Your task to perform on an android device: open app "Google Drive" Image 0: 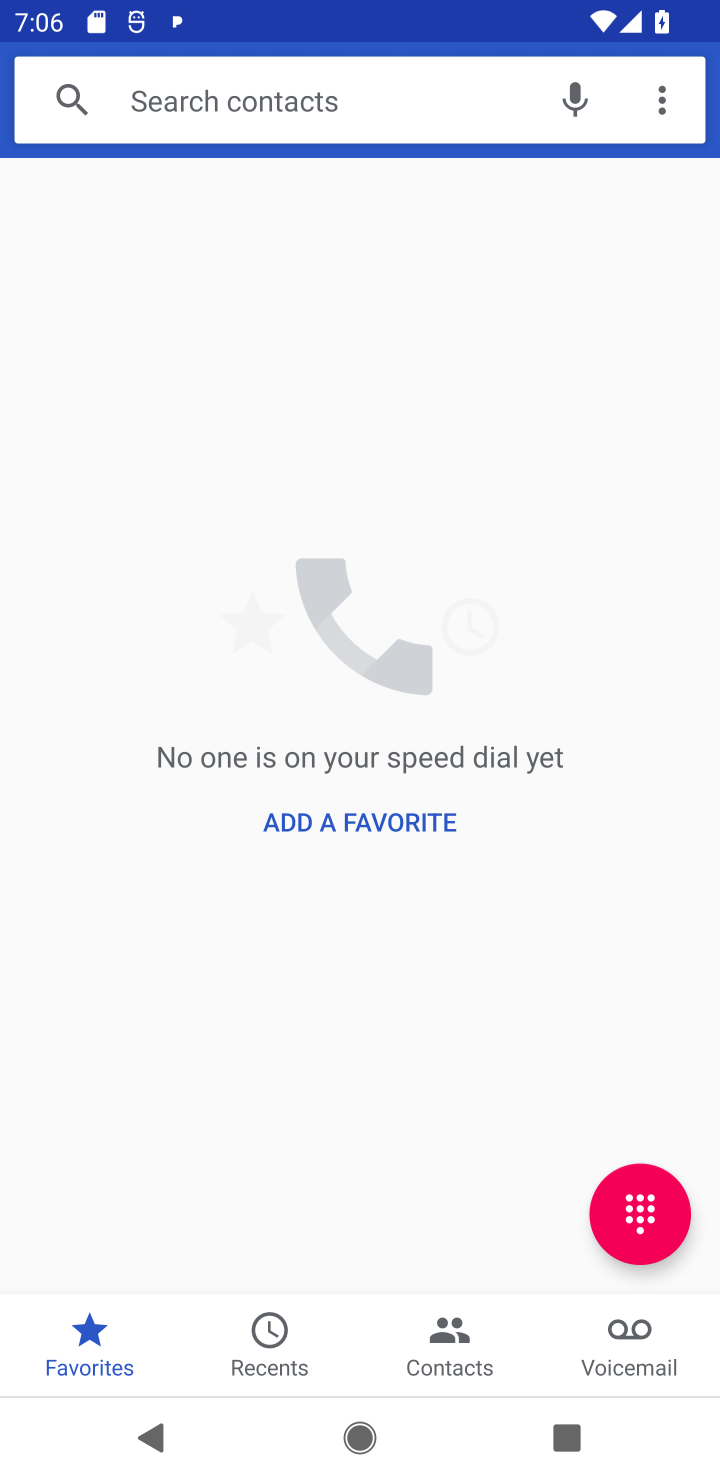
Step 0: press home button
Your task to perform on an android device: open app "Google Drive" Image 1: 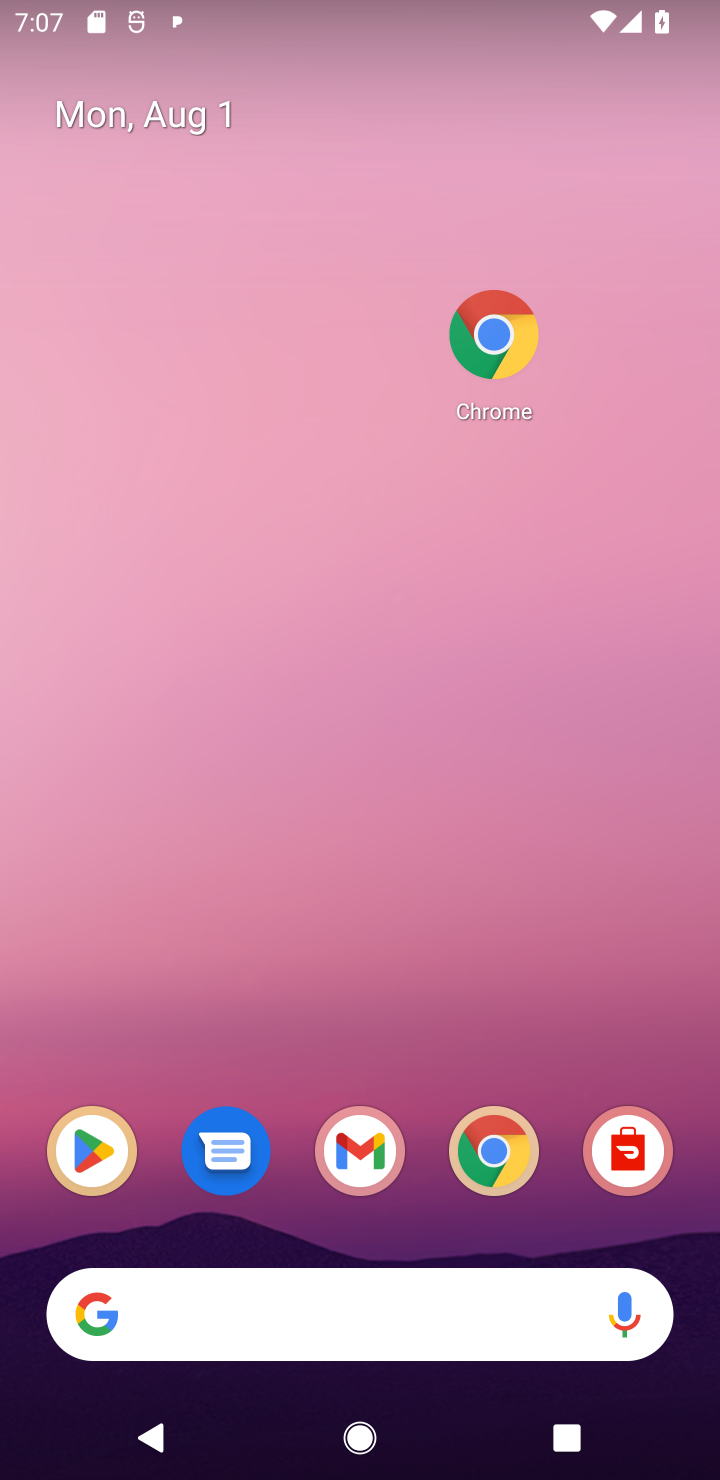
Step 1: drag from (334, 1247) to (354, 37)
Your task to perform on an android device: open app "Google Drive" Image 2: 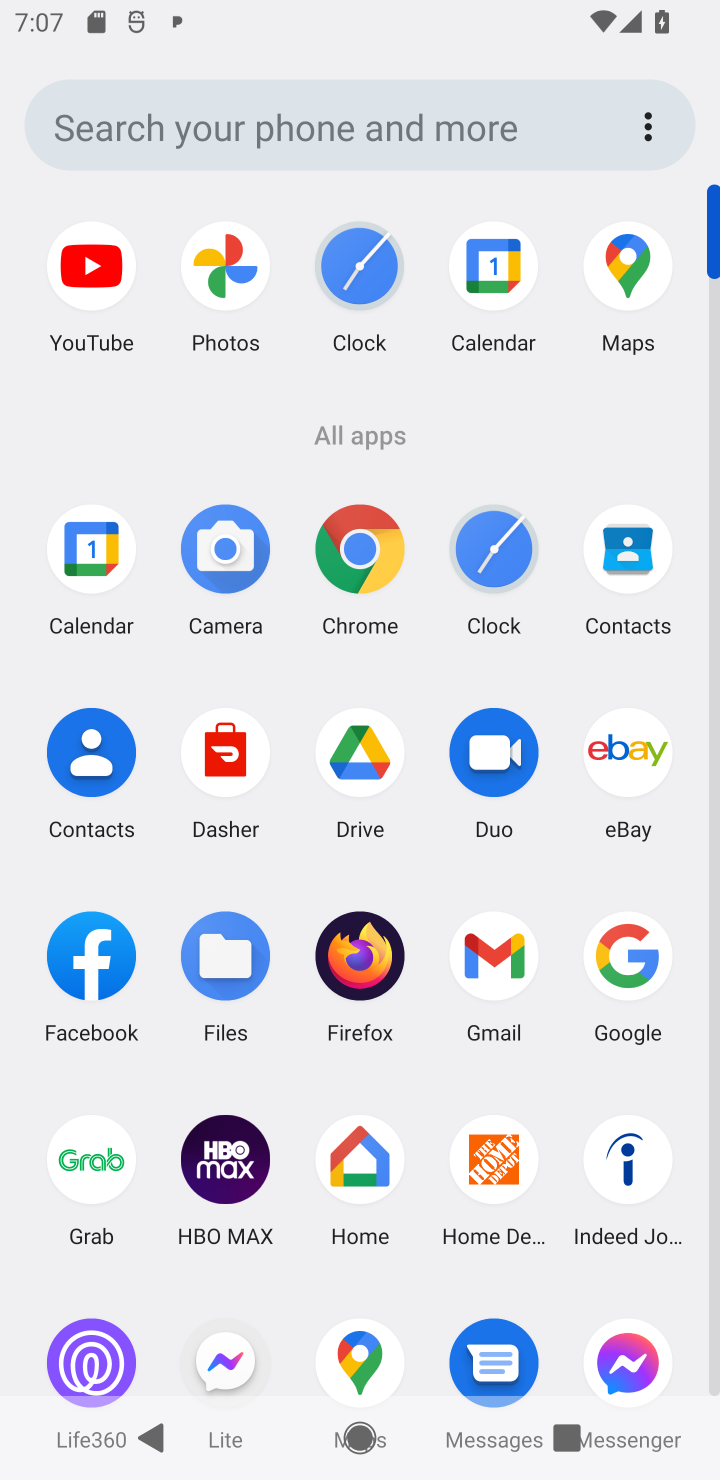
Step 2: click (348, 755)
Your task to perform on an android device: open app "Google Drive" Image 3: 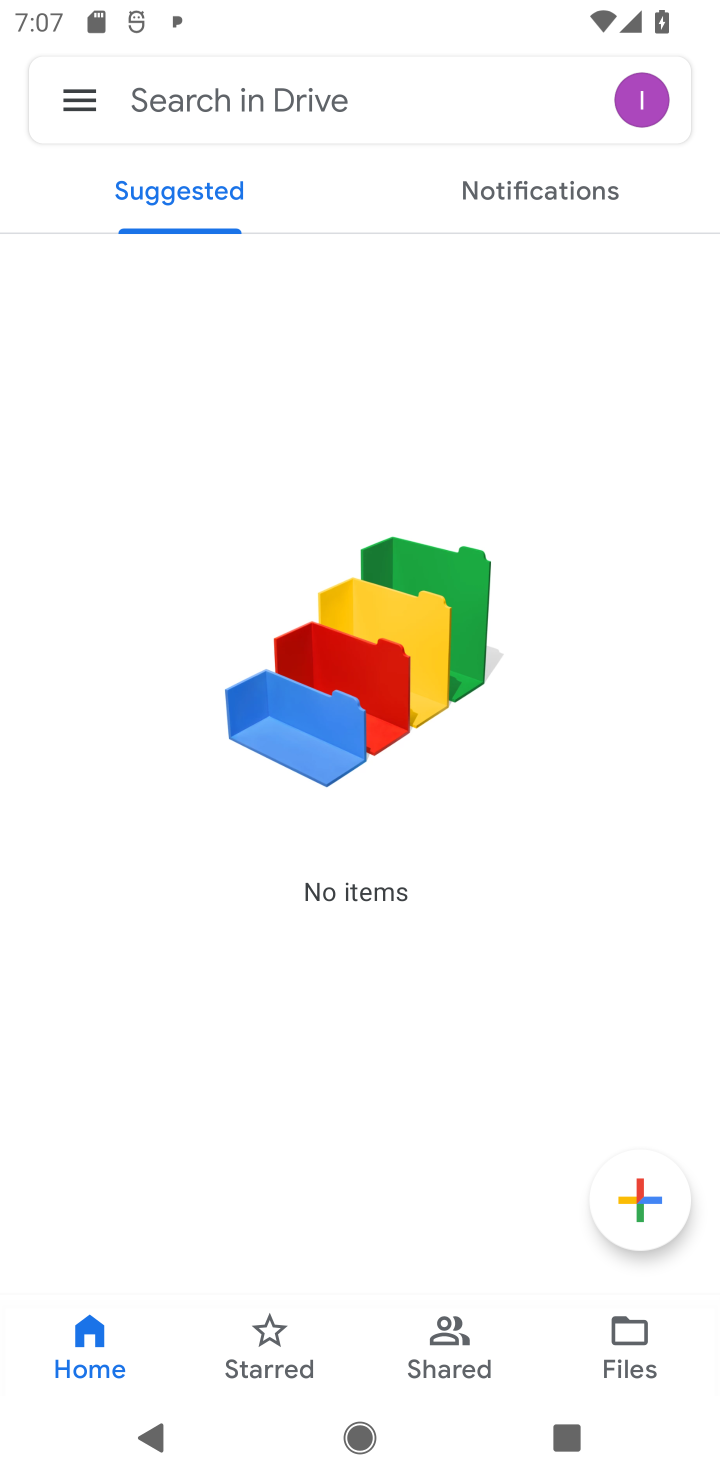
Step 3: task complete